Your task to perform on an android device: Open display settings Image 0: 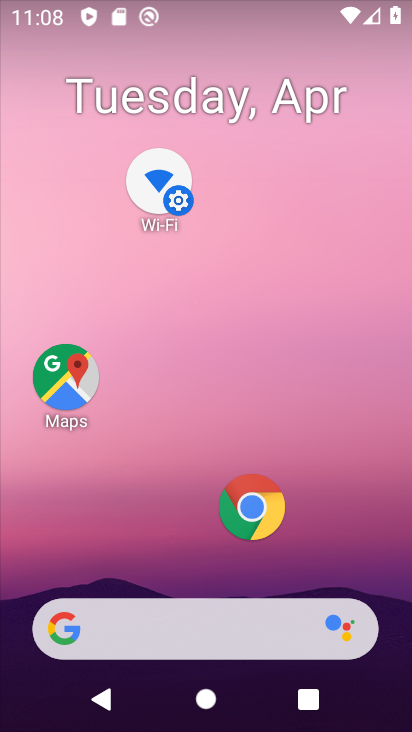
Step 0: drag from (62, 540) to (218, 137)
Your task to perform on an android device: Open display settings Image 1: 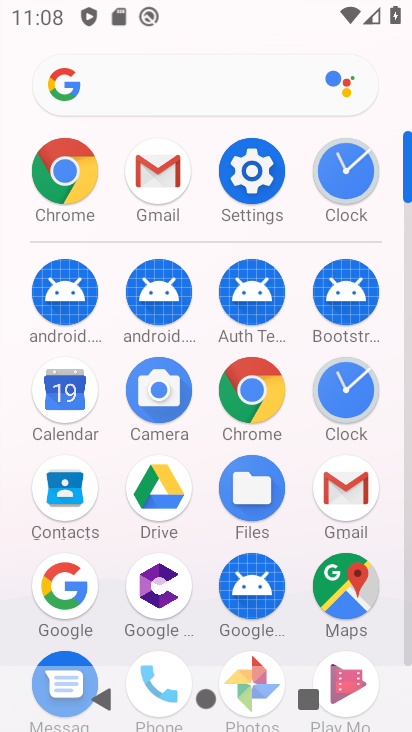
Step 1: click (326, 378)
Your task to perform on an android device: Open display settings Image 2: 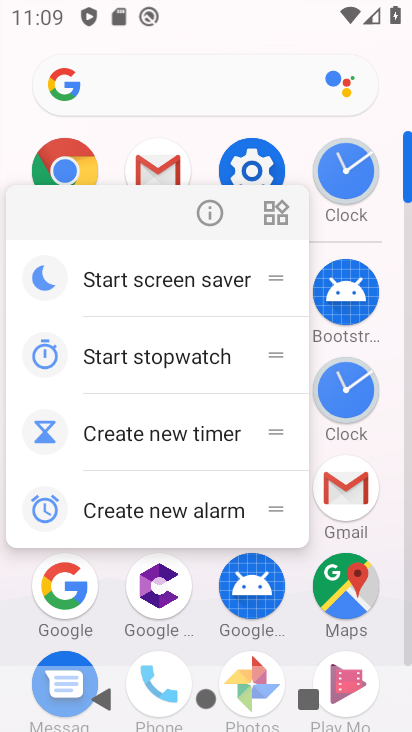
Step 2: click (349, 362)
Your task to perform on an android device: Open display settings Image 3: 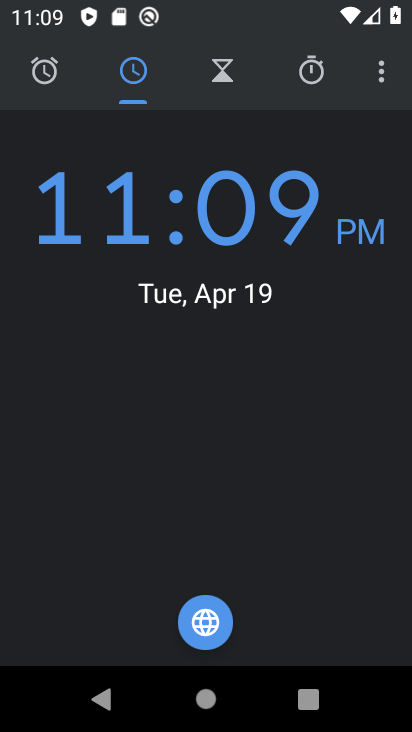
Step 3: click (381, 77)
Your task to perform on an android device: Open display settings Image 4: 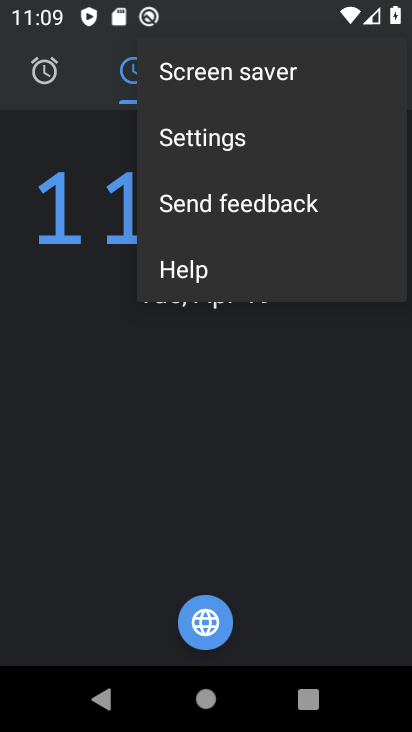
Step 4: click (293, 154)
Your task to perform on an android device: Open display settings Image 5: 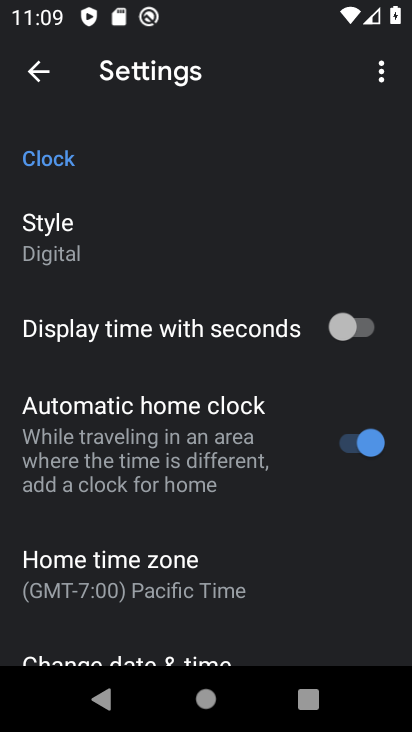
Step 5: task complete